Your task to perform on an android device: Open Youtube and go to "Your channel" Image 0: 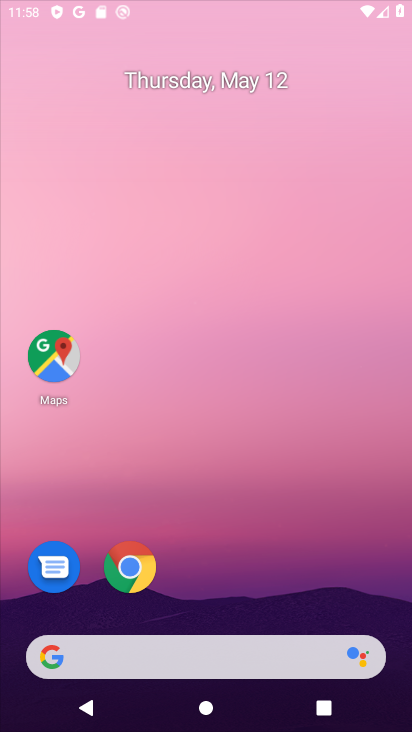
Step 0: drag from (181, 631) to (213, 348)
Your task to perform on an android device: Open Youtube and go to "Your channel" Image 1: 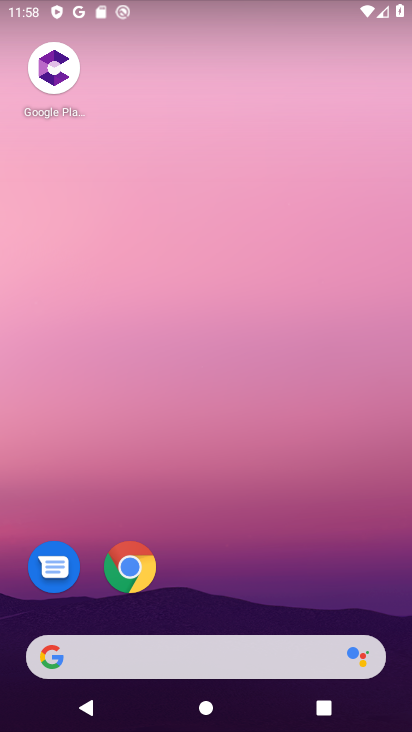
Step 1: drag from (183, 619) to (235, 281)
Your task to perform on an android device: Open Youtube and go to "Your channel" Image 2: 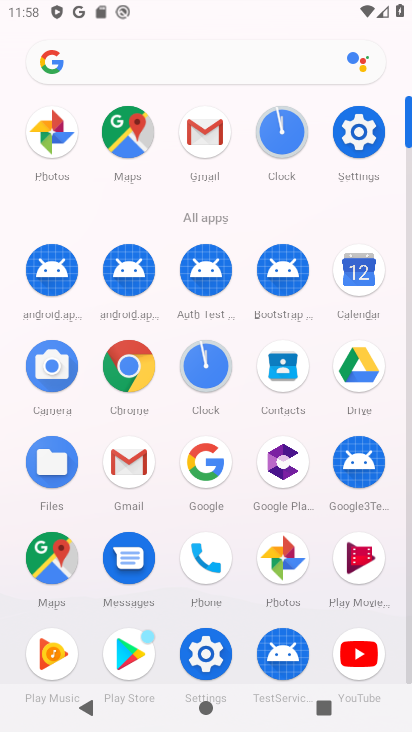
Step 2: click (366, 656)
Your task to perform on an android device: Open Youtube and go to "Your channel" Image 3: 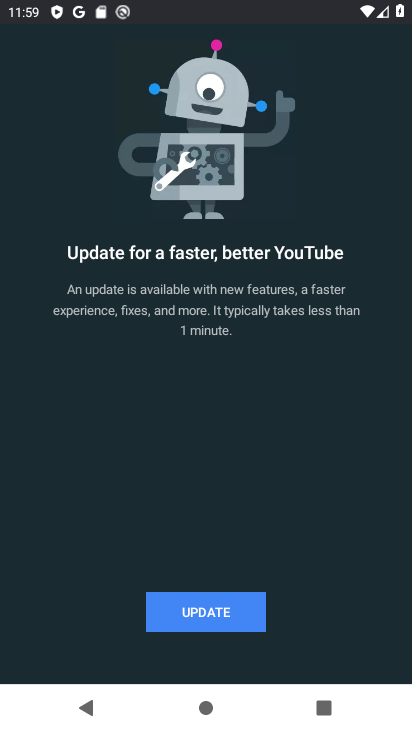
Step 3: click (273, 558)
Your task to perform on an android device: Open Youtube and go to "Your channel" Image 4: 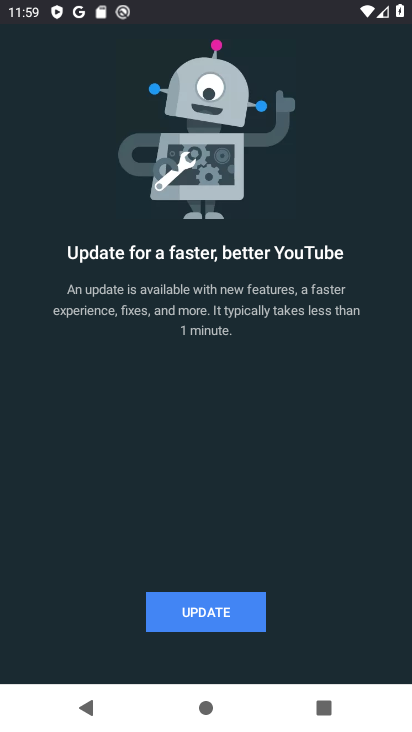
Step 4: click (215, 619)
Your task to perform on an android device: Open Youtube and go to "Your channel" Image 5: 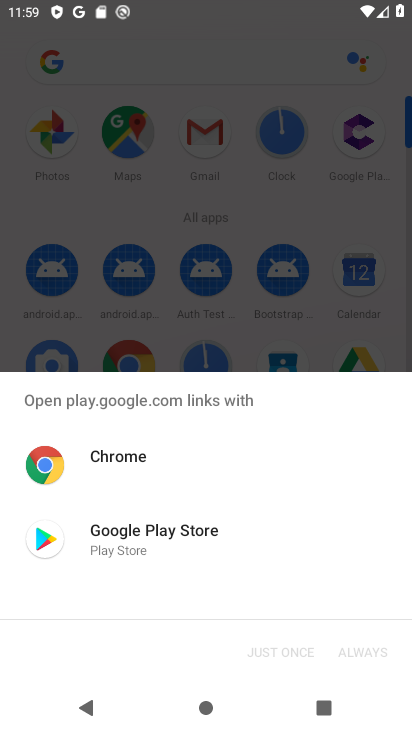
Step 5: task complete